Your task to perform on an android device: Do I have any events this weekend? Image 0: 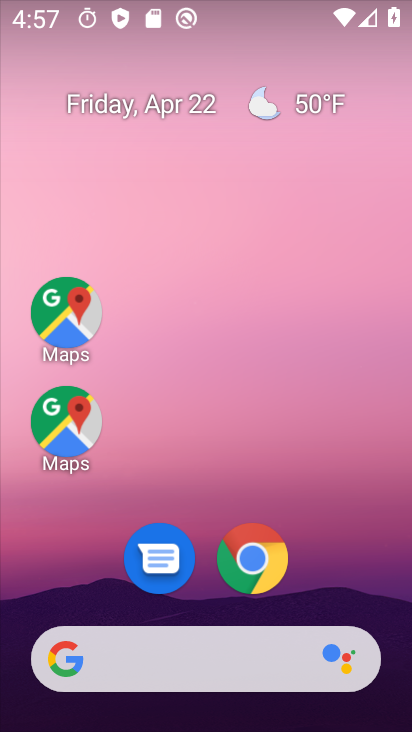
Step 0: drag from (312, 563) to (244, 39)
Your task to perform on an android device: Do I have any events this weekend? Image 1: 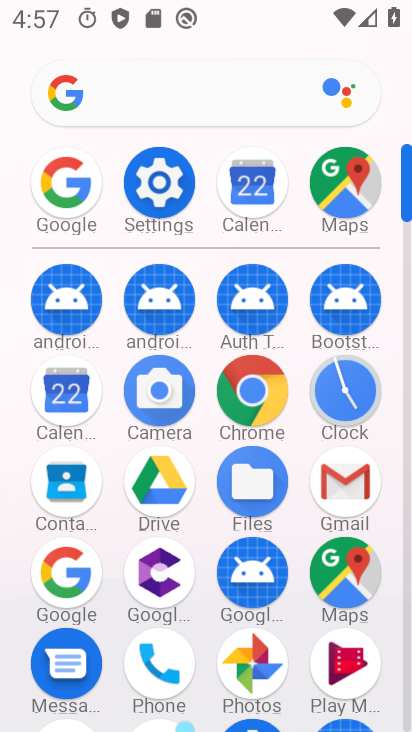
Step 1: click (55, 428)
Your task to perform on an android device: Do I have any events this weekend? Image 2: 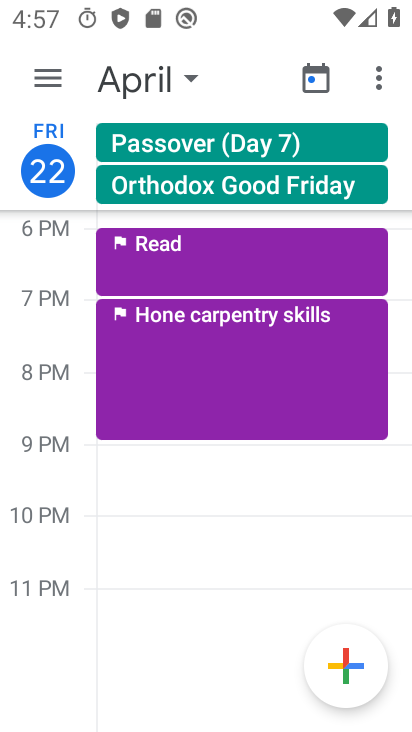
Step 2: drag from (180, 683) to (191, 260)
Your task to perform on an android device: Do I have any events this weekend? Image 3: 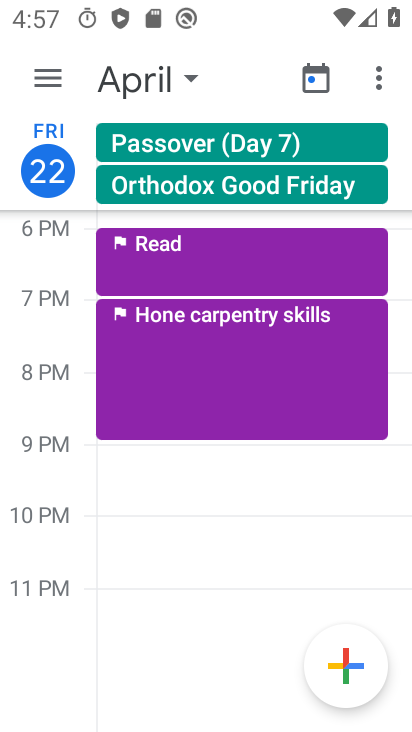
Step 3: drag from (59, 613) to (84, 209)
Your task to perform on an android device: Do I have any events this weekend? Image 4: 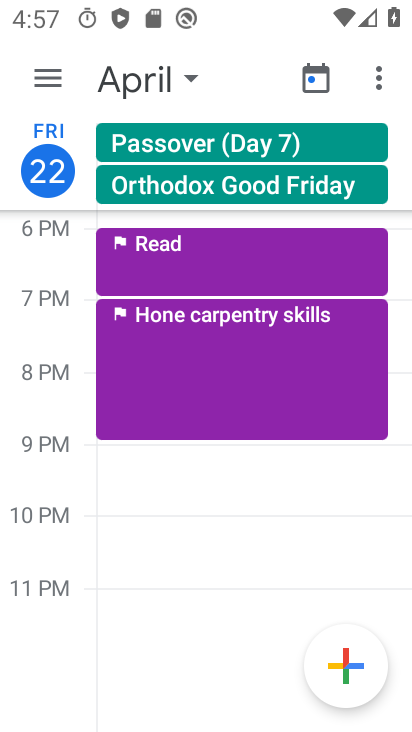
Step 4: drag from (167, 480) to (204, 7)
Your task to perform on an android device: Do I have any events this weekend? Image 5: 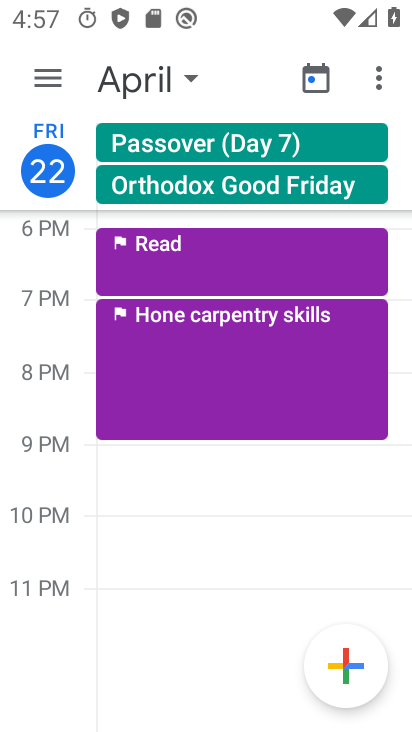
Step 5: drag from (35, 326) to (66, 53)
Your task to perform on an android device: Do I have any events this weekend? Image 6: 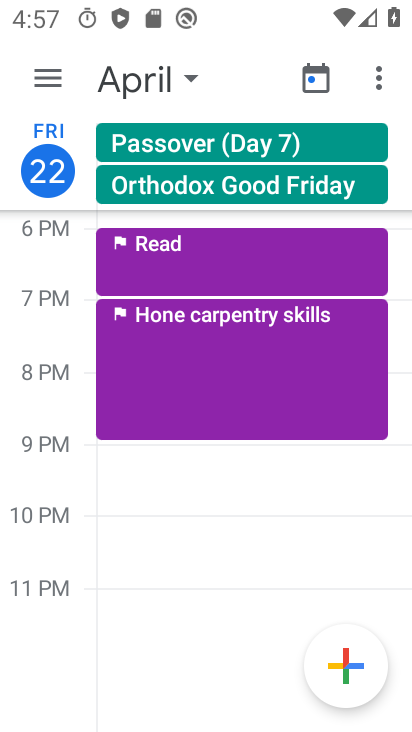
Step 6: click (146, 94)
Your task to perform on an android device: Do I have any events this weekend? Image 7: 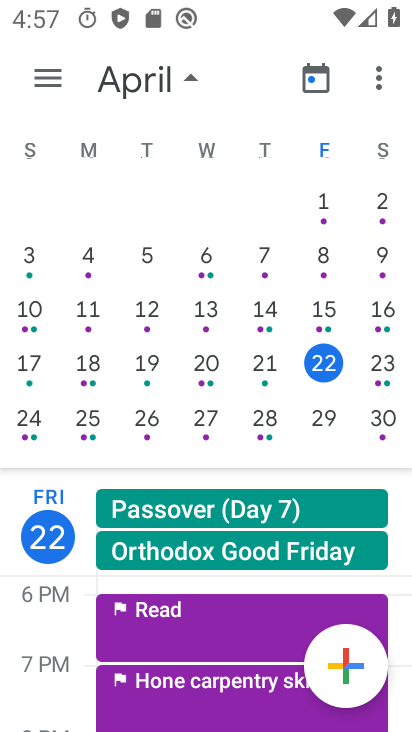
Step 7: click (378, 372)
Your task to perform on an android device: Do I have any events this weekend? Image 8: 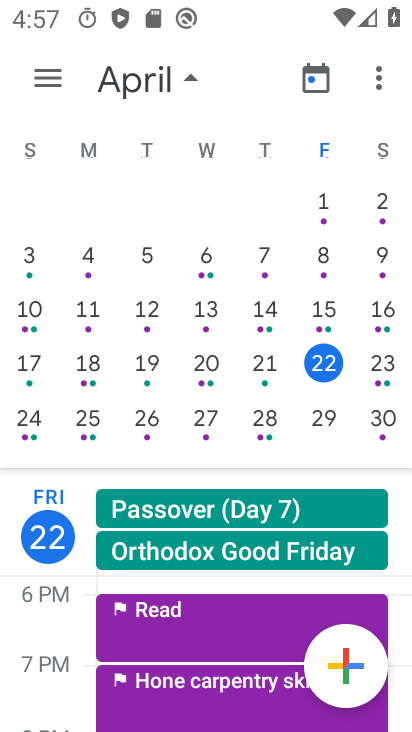
Step 8: click (49, 88)
Your task to perform on an android device: Do I have any events this weekend? Image 9: 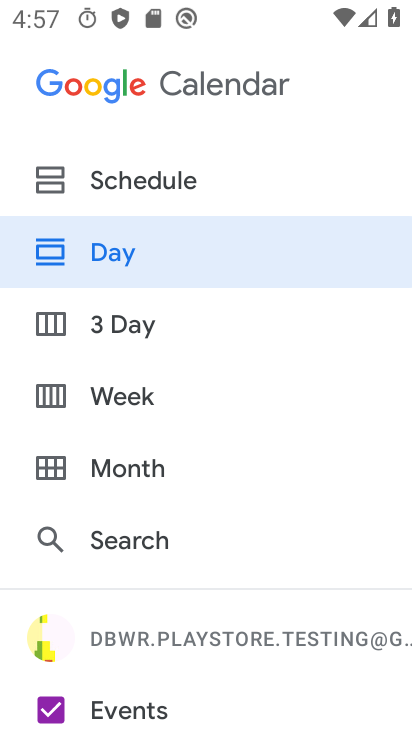
Step 9: click (133, 389)
Your task to perform on an android device: Do I have any events this weekend? Image 10: 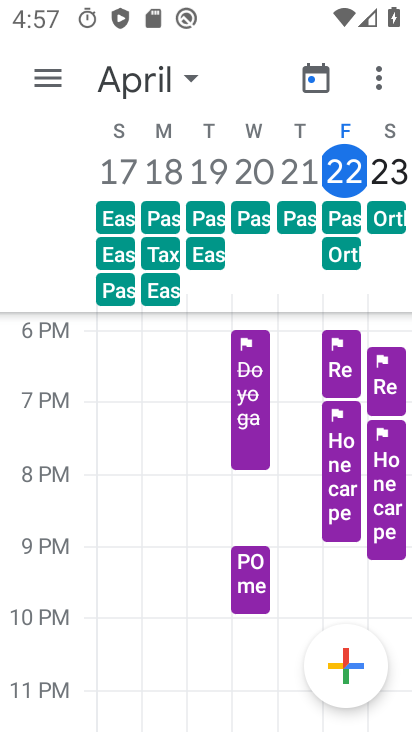
Step 10: task complete